Your task to perform on an android device: check storage Image 0: 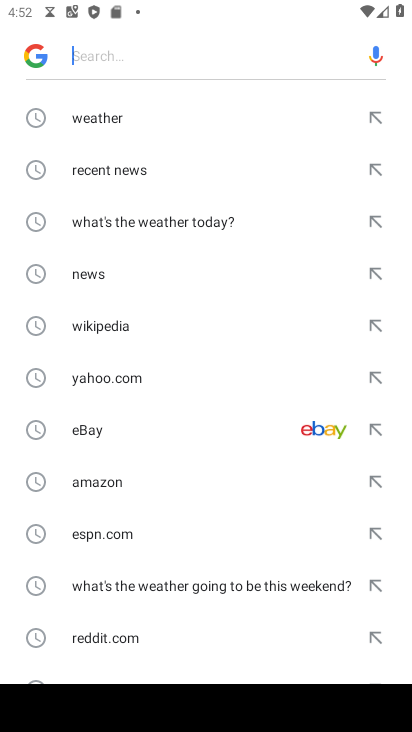
Step 0: press home button
Your task to perform on an android device: check storage Image 1: 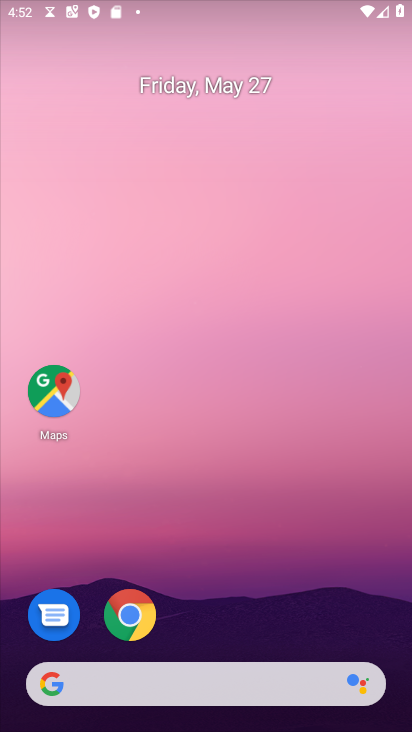
Step 1: drag from (256, 411) to (125, 19)
Your task to perform on an android device: check storage Image 2: 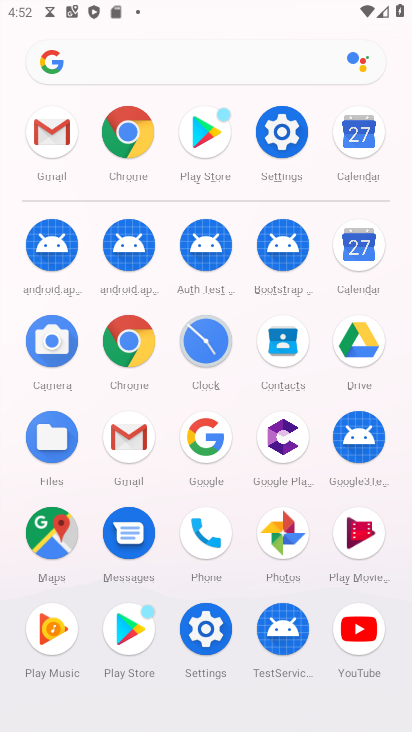
Step 2: click (284, 157)
Your task to perform on an android device: check storage Image 3: 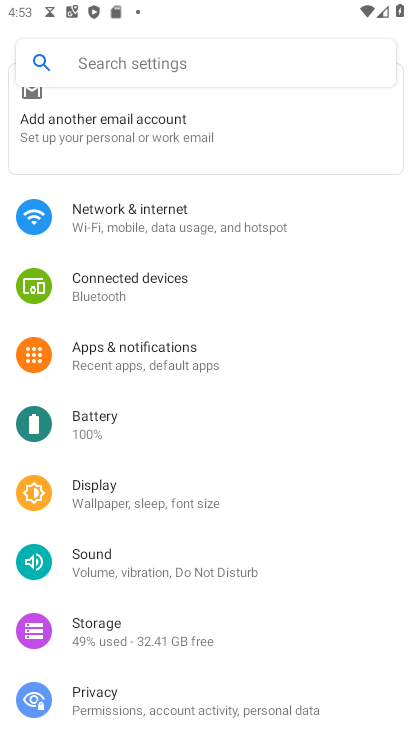
Step 3: click (144, 621)
Your task to perform on an android device: check storage Image 4: 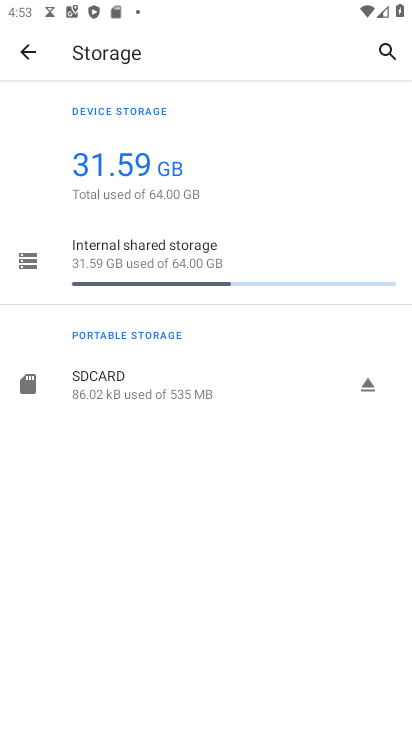
Step 4: task complete